Your task to perform on an android device: turn off location Image 0: 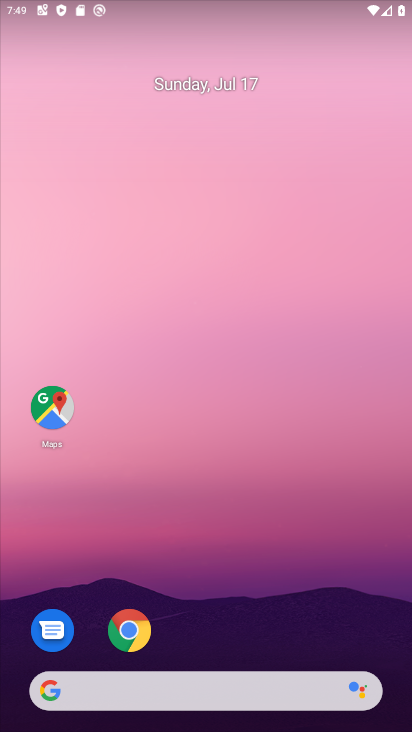
Step 0: drag from (153, 721) to (288, 6)
Your task to perform on an android device: turn off location Image 1: 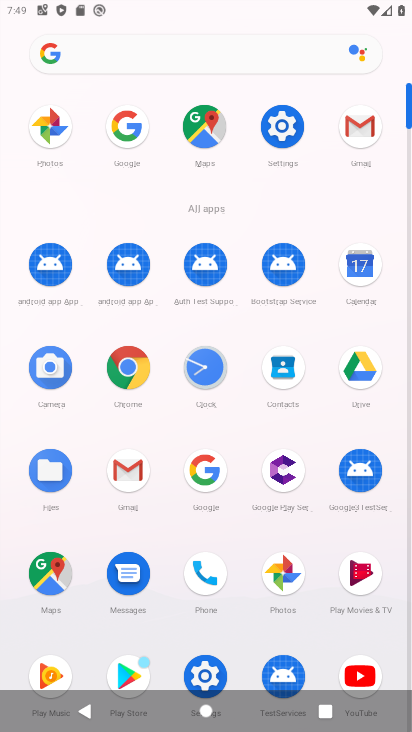
Step 1: click (283, 125)
Your task to perform on an android device: turn off location Image 2: 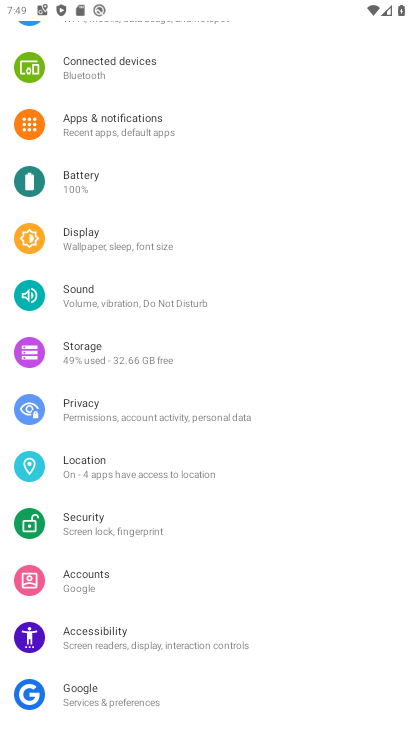
Step 2: click (131, 466)
Your task to perform on an android device: turn off location Image 3: 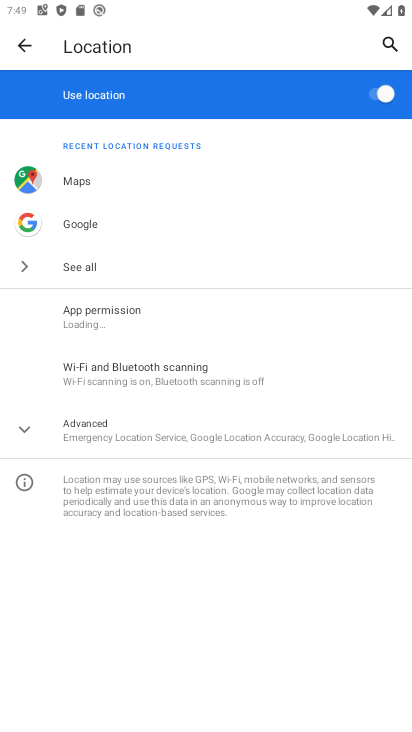
Step 3: click (382, 92)
Your task to perform on an android device: turn off location Image 4: 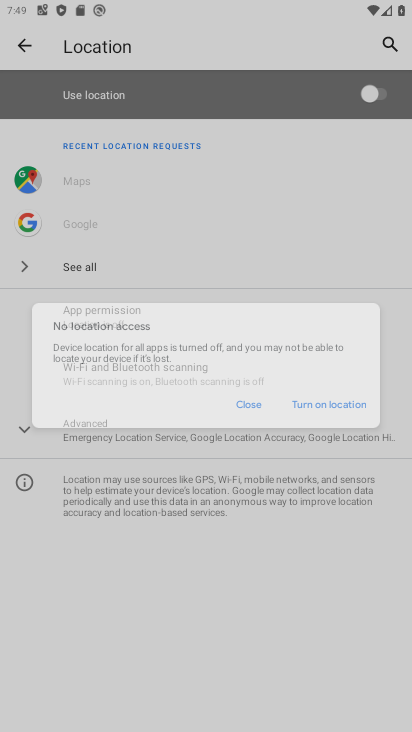
Step 4: task complete